Your task to perform on an android device: Open wifi settings Image 0: 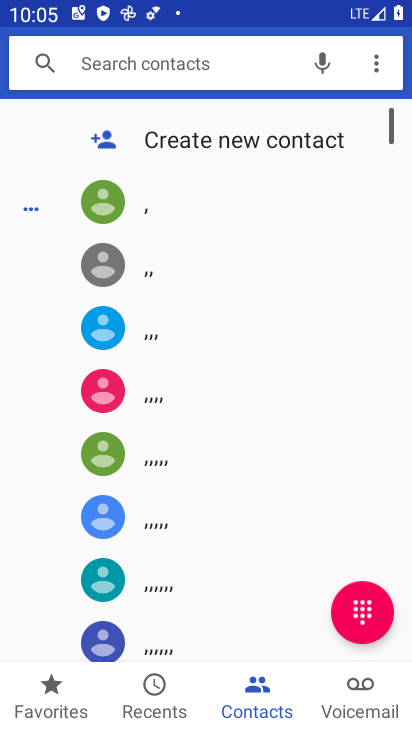
Step 0: press home button
Your task to perform on an android device: Open wifi settings Image 1: 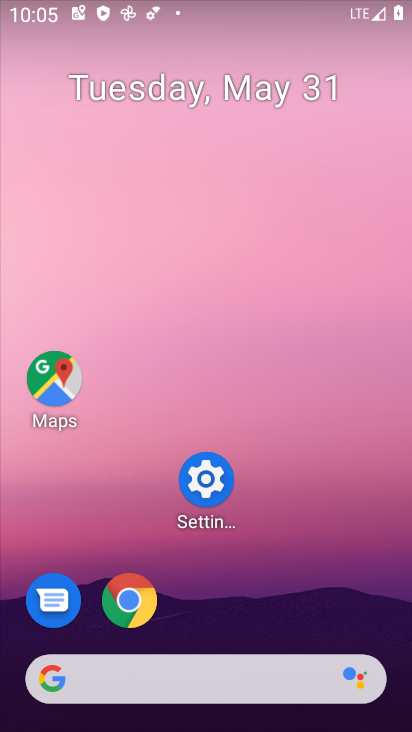
Step 1: click (221, 471)
Your task to perform on an android device: Open wifi settings Image 2: 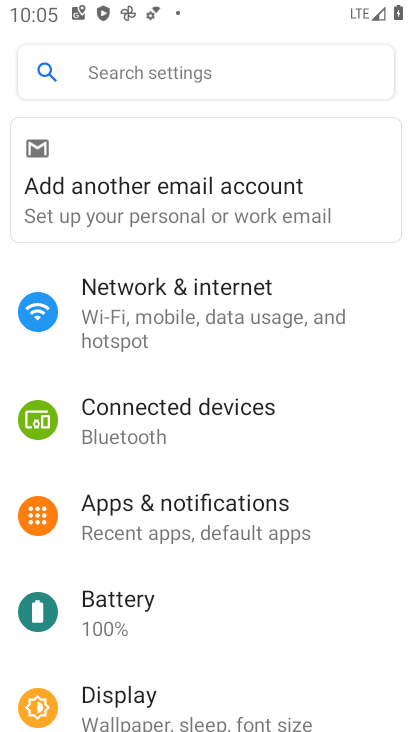
Step 2: click (176, 291)
Your task to perform on an android device: Open wifi settings Image 3: 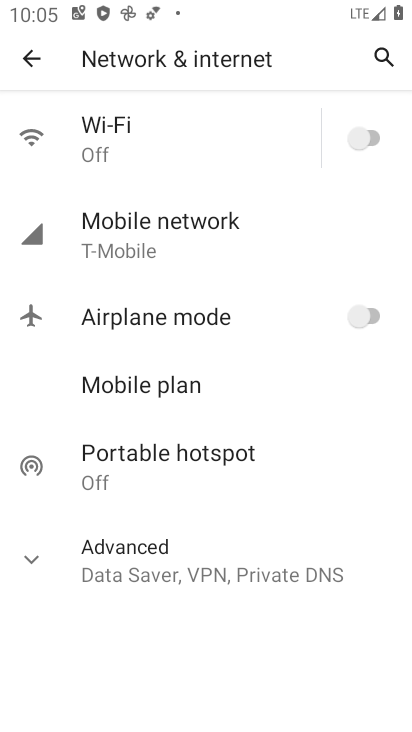
Step 3: click (164, 116)
Your task to perform on an android device: Open wifi settings Image 4: 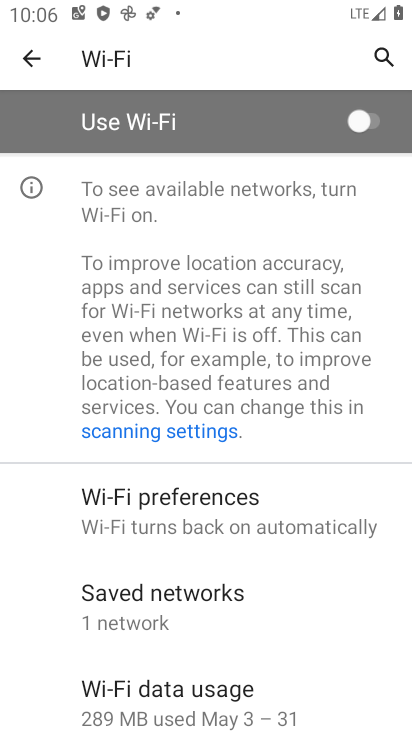
Step 4: task complete